Your task to perform on an android device: Play the last video I watched on Youtube Image 0: 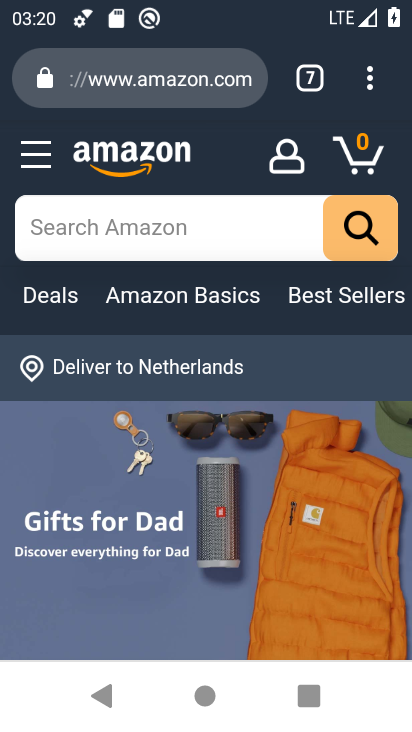
Step 0: press home button
Your task to perform on an android device: Play the last video I watched on Youtube Image 1: 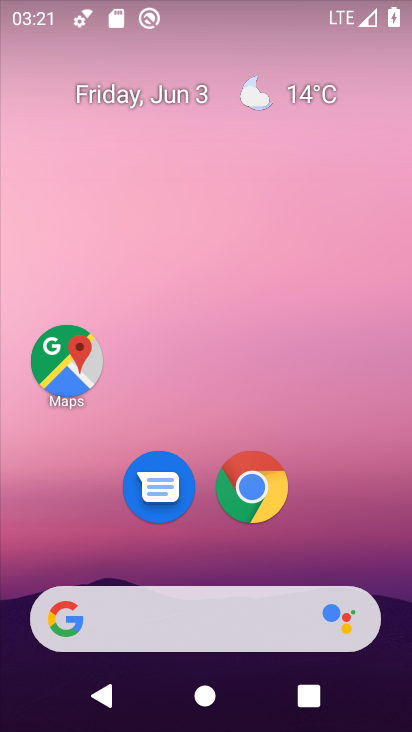
Step 1: drag from (347, 534) to (192, 36)
Your task to perform on an android device: Play the last video I watched on Youtube Image 2: 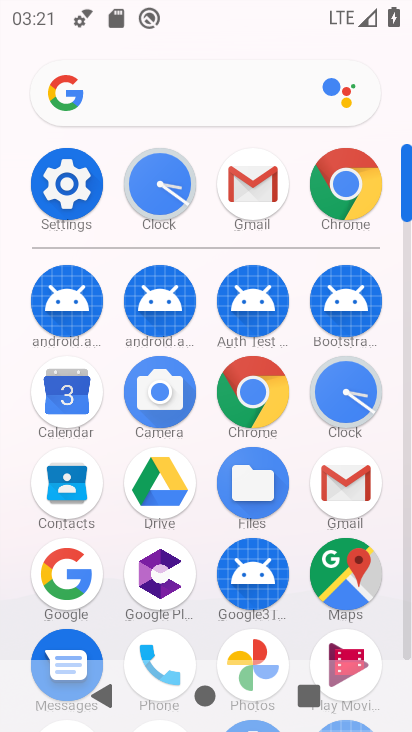
Step 2: drag from (202, 397) to (158, 93)
Your task to perform on an android device: Play the last video I watched on Youtube Image 3: 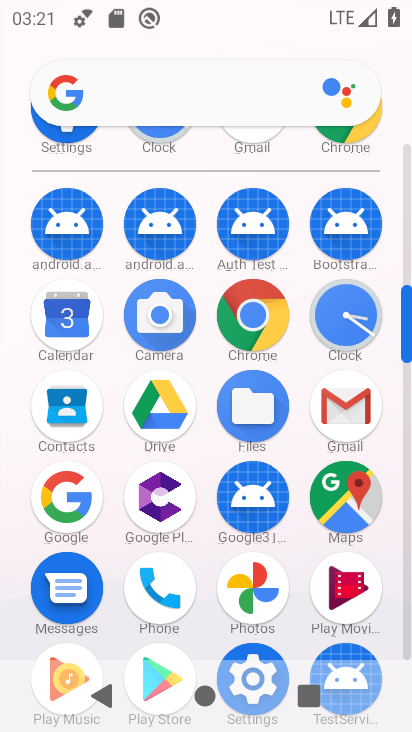
Step 3: drag from (232, 598) to (182, 146)
Your task to perform on an android device: Play the last video I watched on Youtube Image 4: 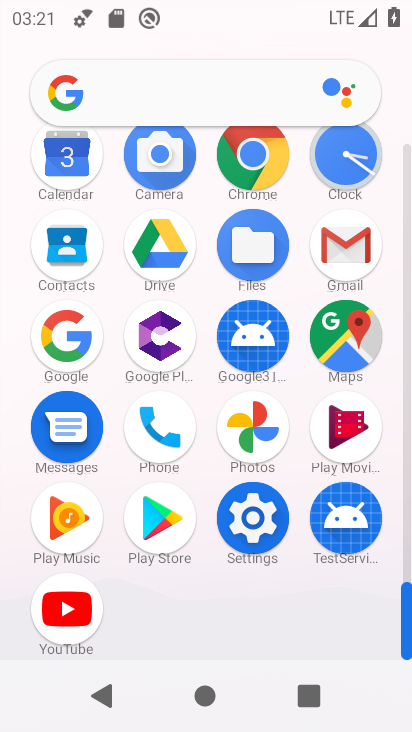
Step 4: click (64, 605)
Your task to perform on an android device: Play the last video I watched on Youtube Image 5: 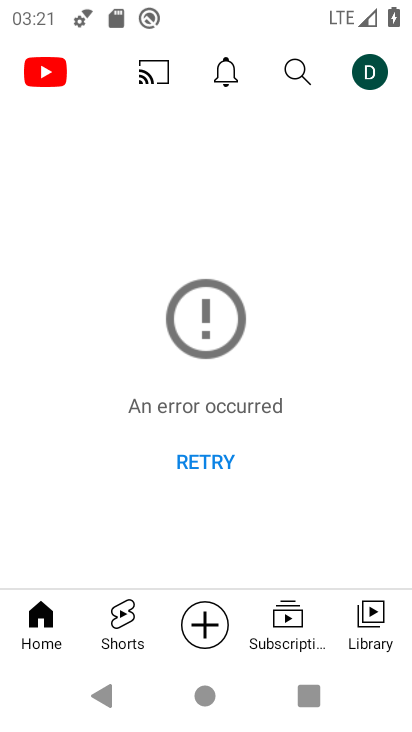
Step 5: click (378, 603)
Your task to perform on an android device: Play the last video I watched on Youtube Image 6: 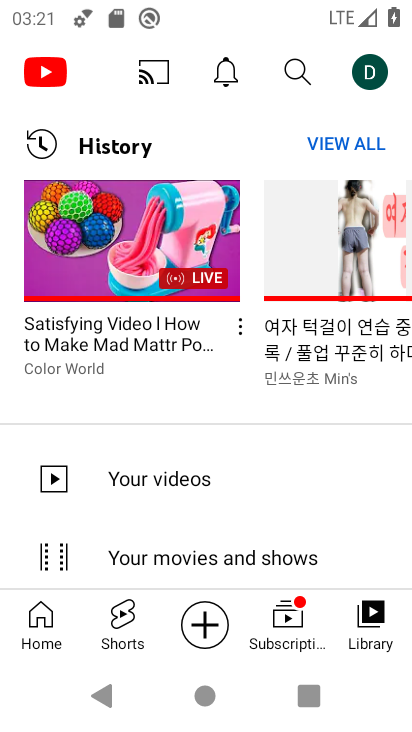
Step 6: click (146, 227)
Your task to perform on an android device: Play the last video I watched on Youtube Image 7: 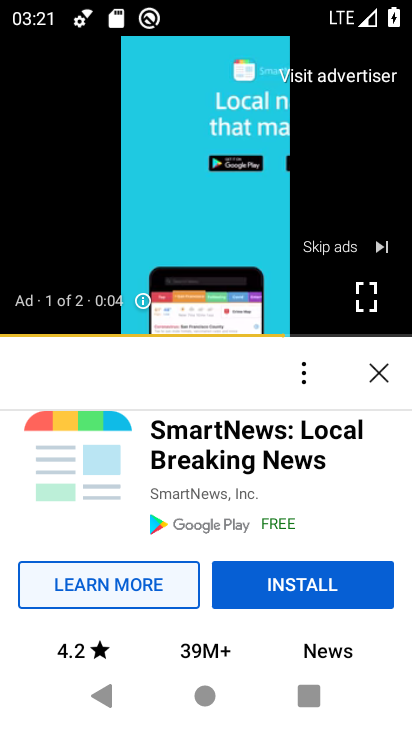
Step 7: click (355, 242)
Your task to perform on an android device: Play the last video I watched on Youtube Image 8: 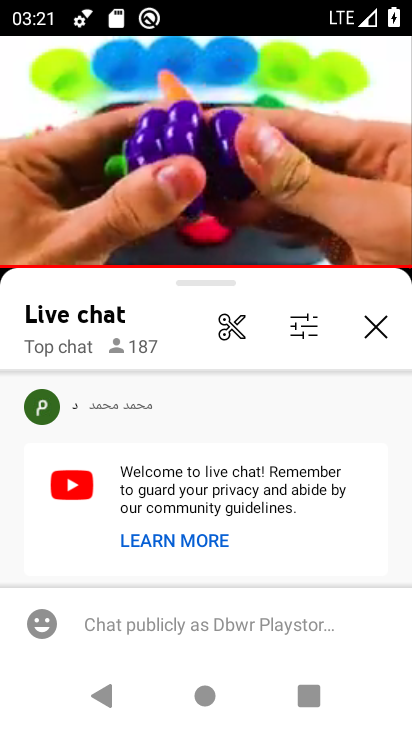
Step 8: click (215, 128)
Your task to perform on an android device: Play the last video I watched on Youtube Image 9: 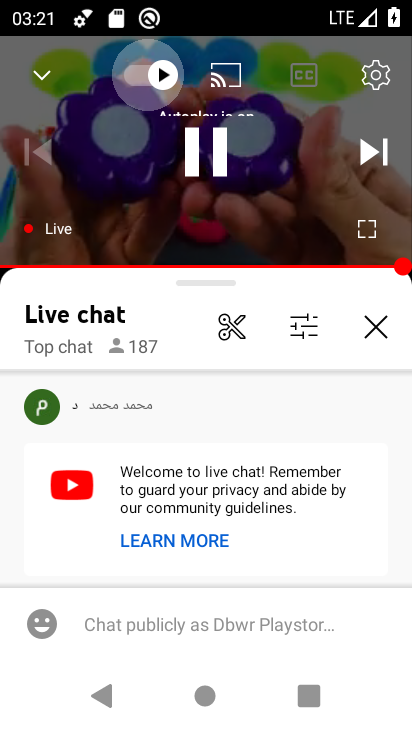
Step 9: click (222, 156)
Your task to perform on an android device: Play the last video I watched on Youtube Image 10: 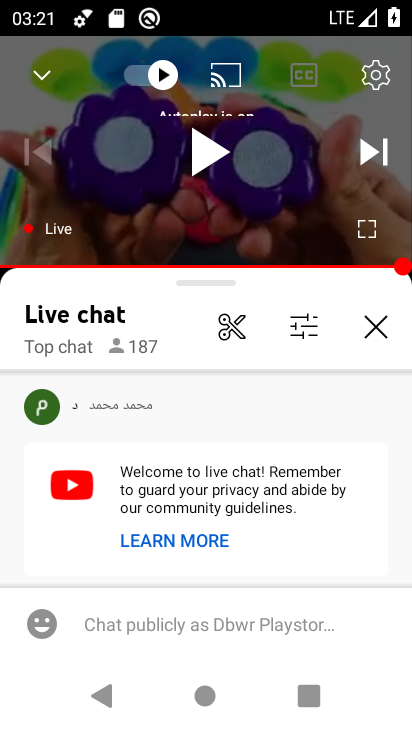
Step 10: task complete